Your task to perform on an android device: install app "LinkedIn" Image 0: 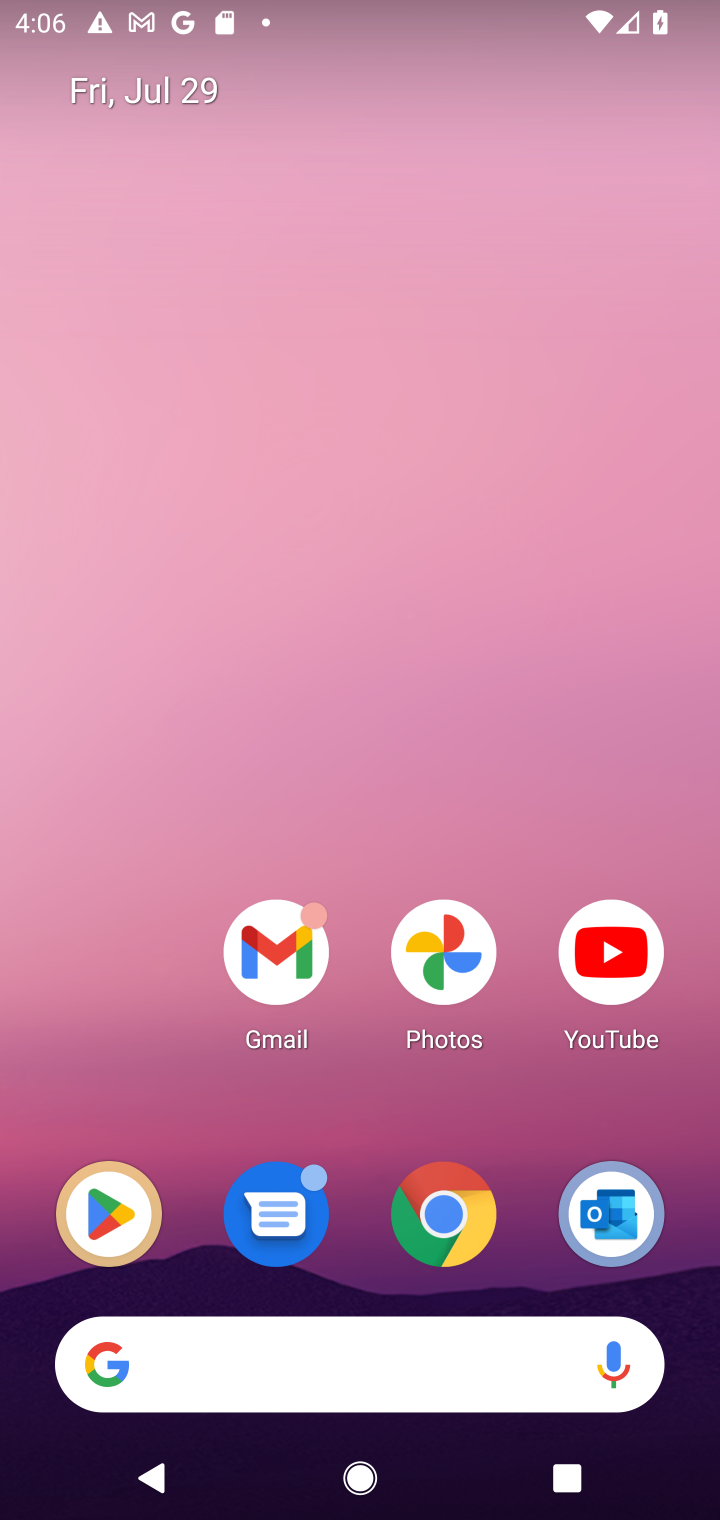
Step 0: click (116, 1229)
Your task to perform on an android device: install app "LinkedIn" Image 1: 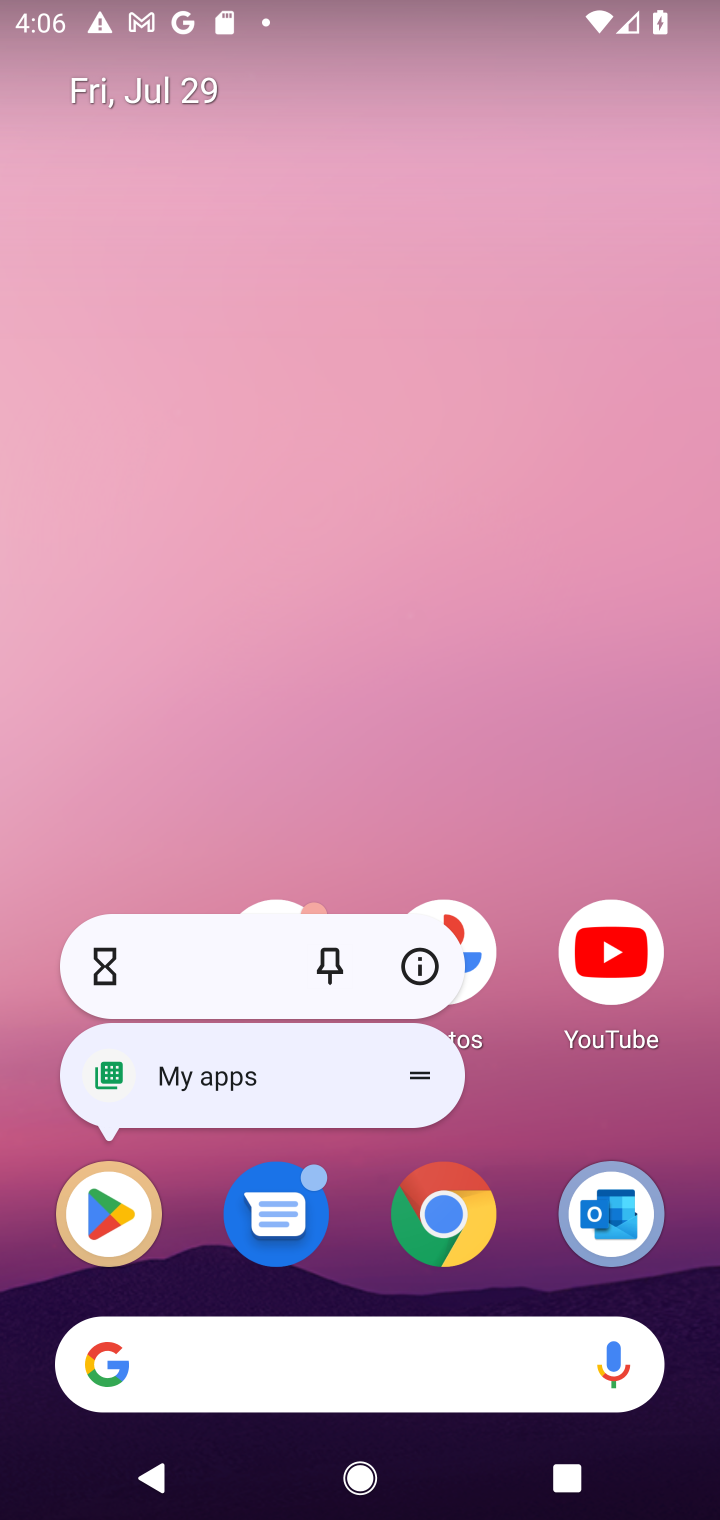
Step 1: click (120, 1217)
Your task to perform on an android device: install app "LinkedIn" Image 2: 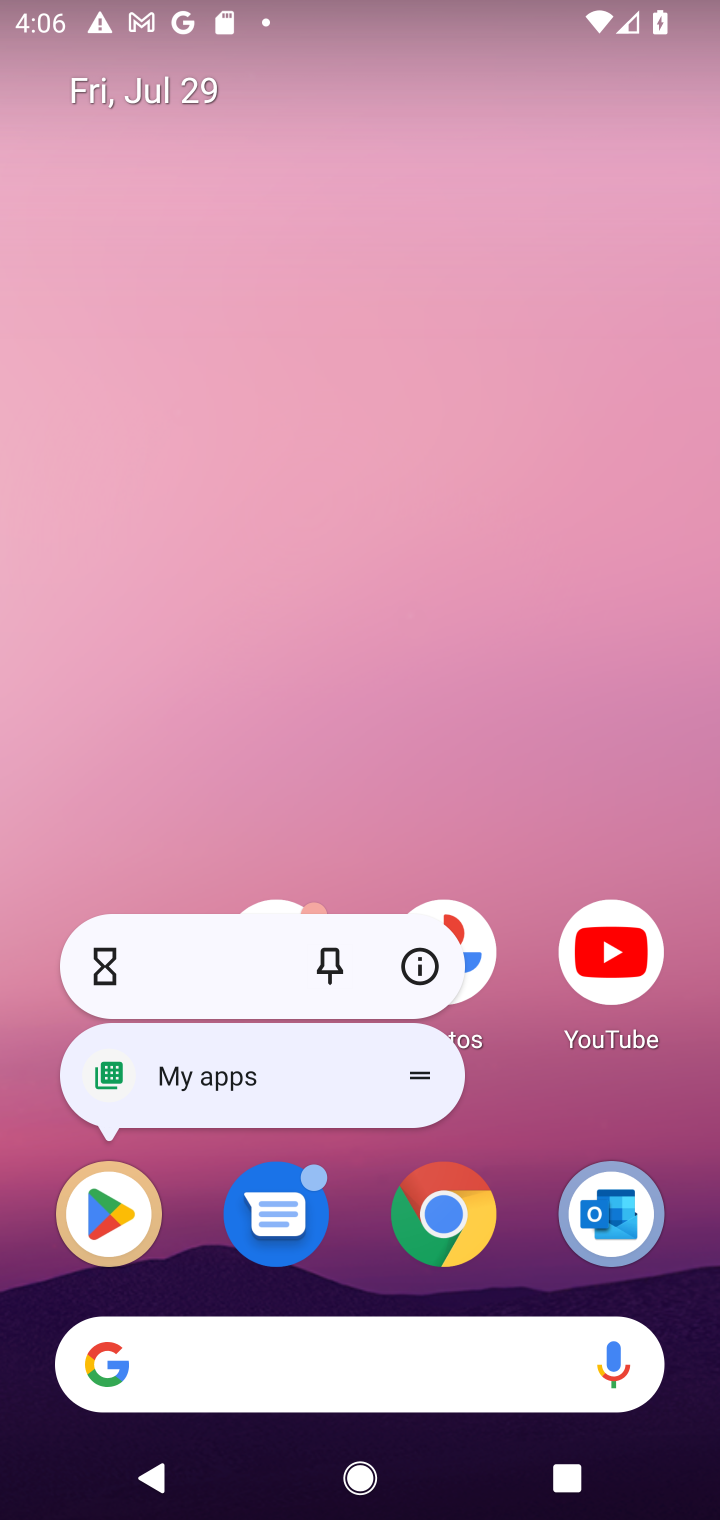
Step 2: click (120, 1217)
Your task to perform on an android device: install app "LinkedIn" Image 3: 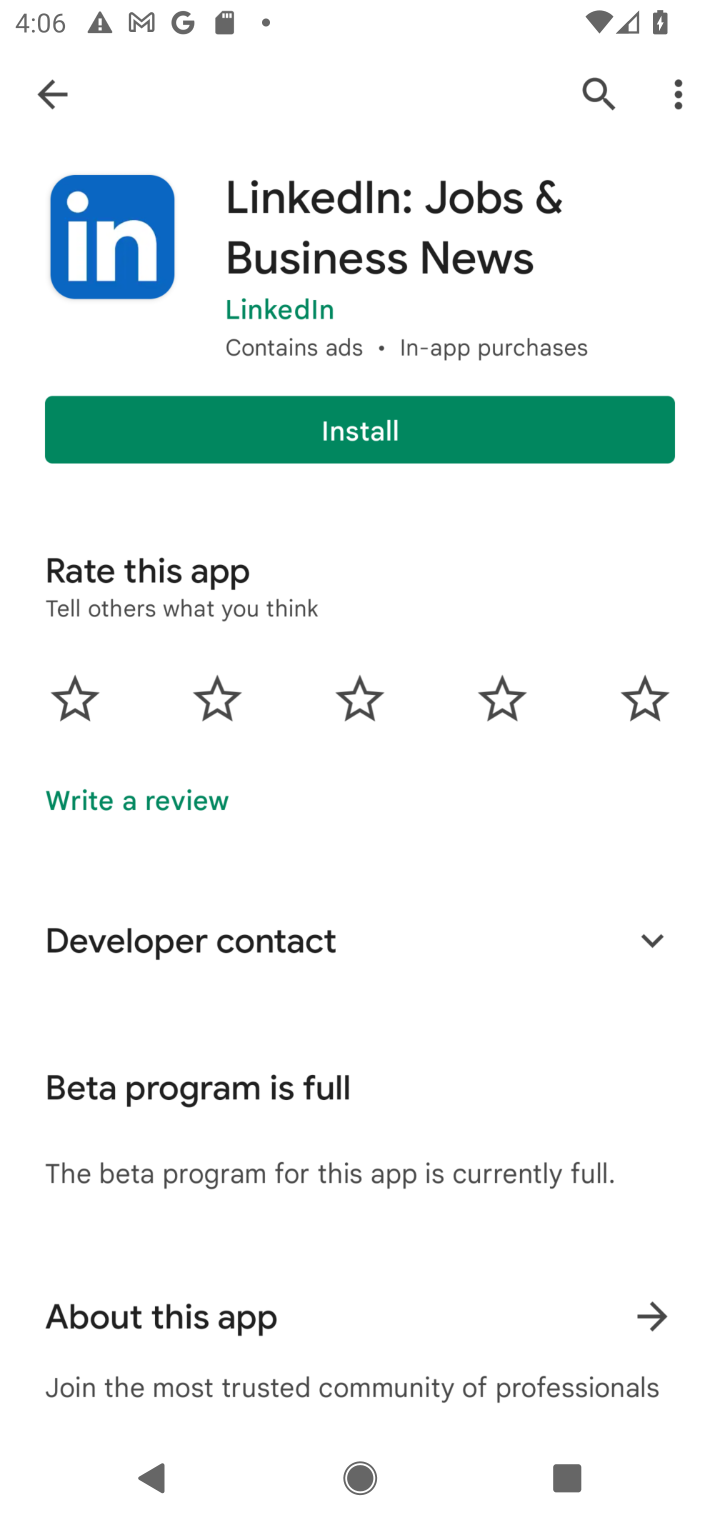
Step 3: click (124, 1219)
Your task to perform on an android device: install app "LinkedIn" Image 4: 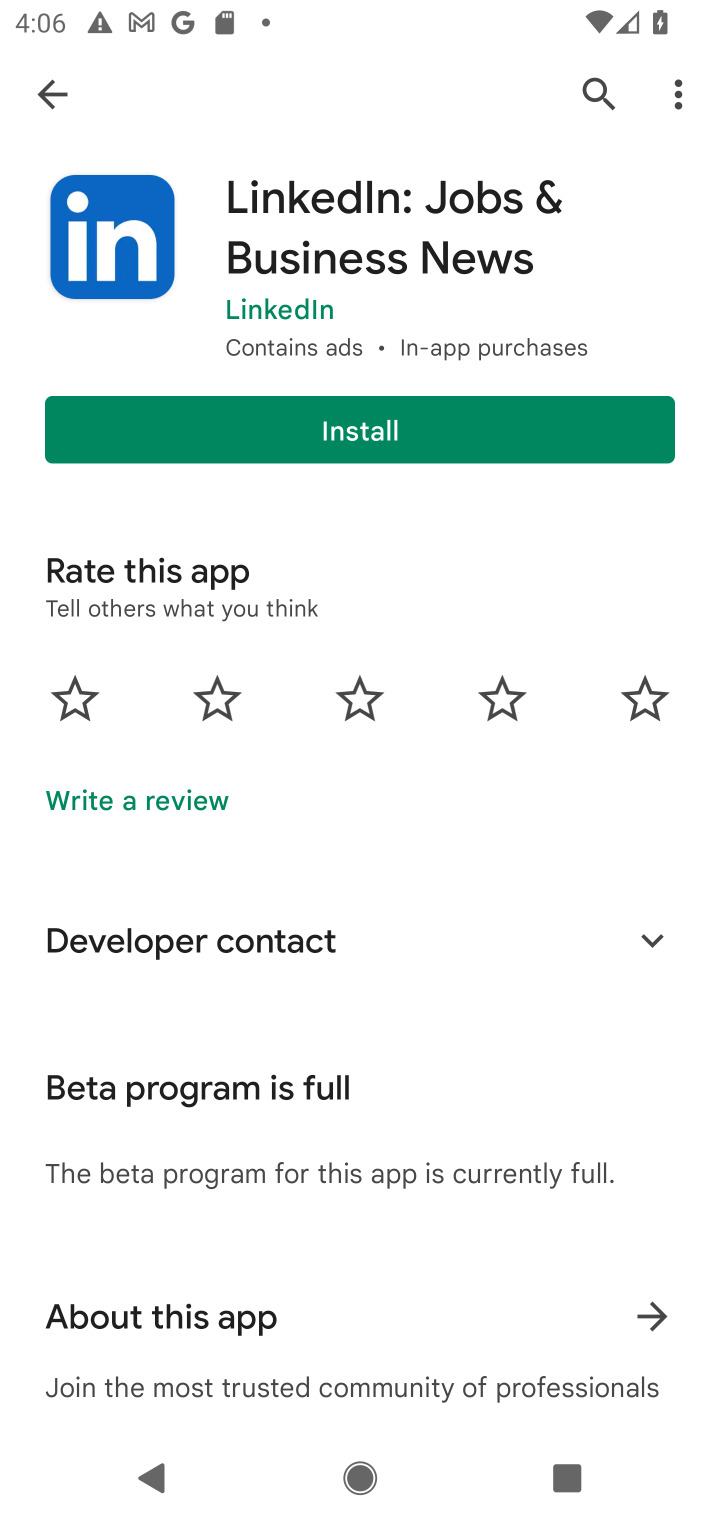
Step 4: click (389, 435)
Your task to perform on an android device: install app "LinkedIn" Image 5: 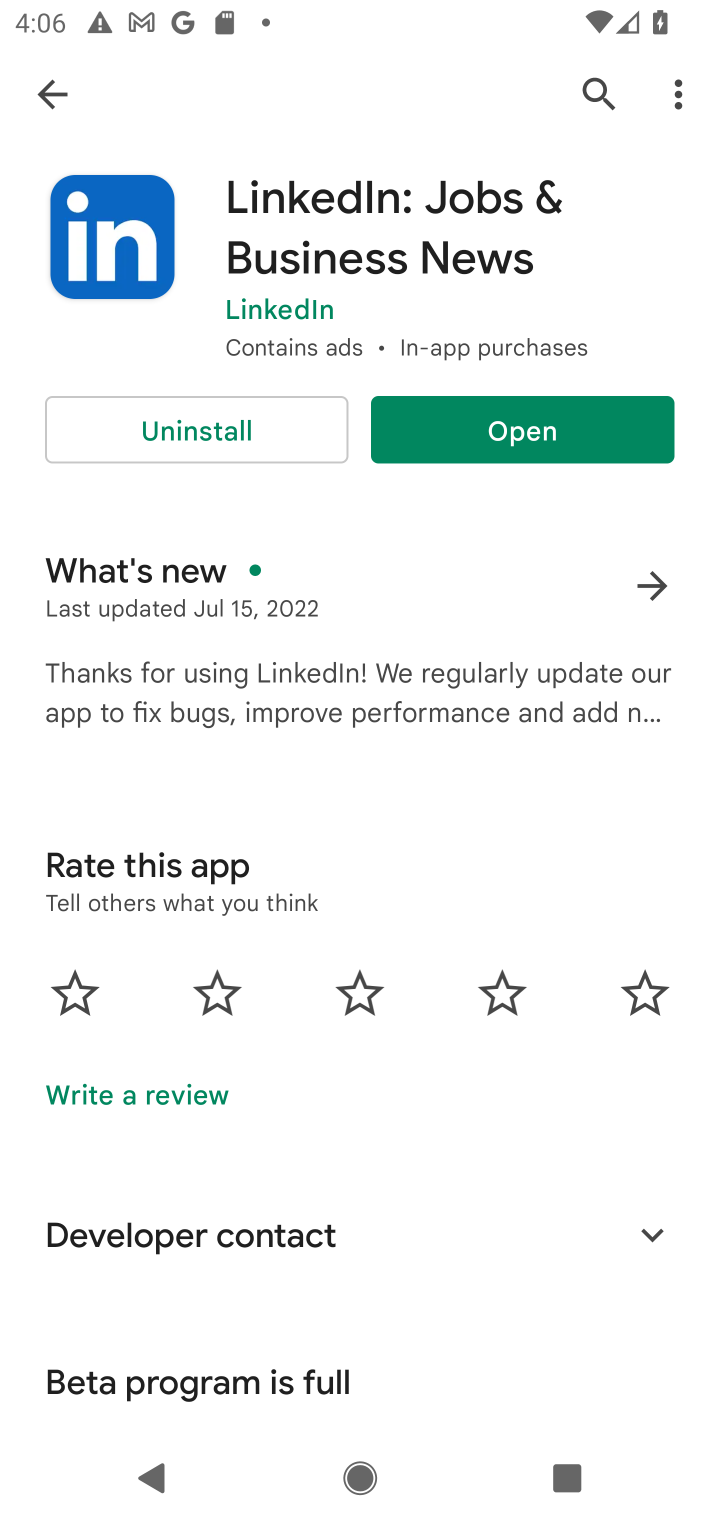
Step 5: click (457, 423)
Your task to perform on an android device: install app "LinkedIn" Image 6: 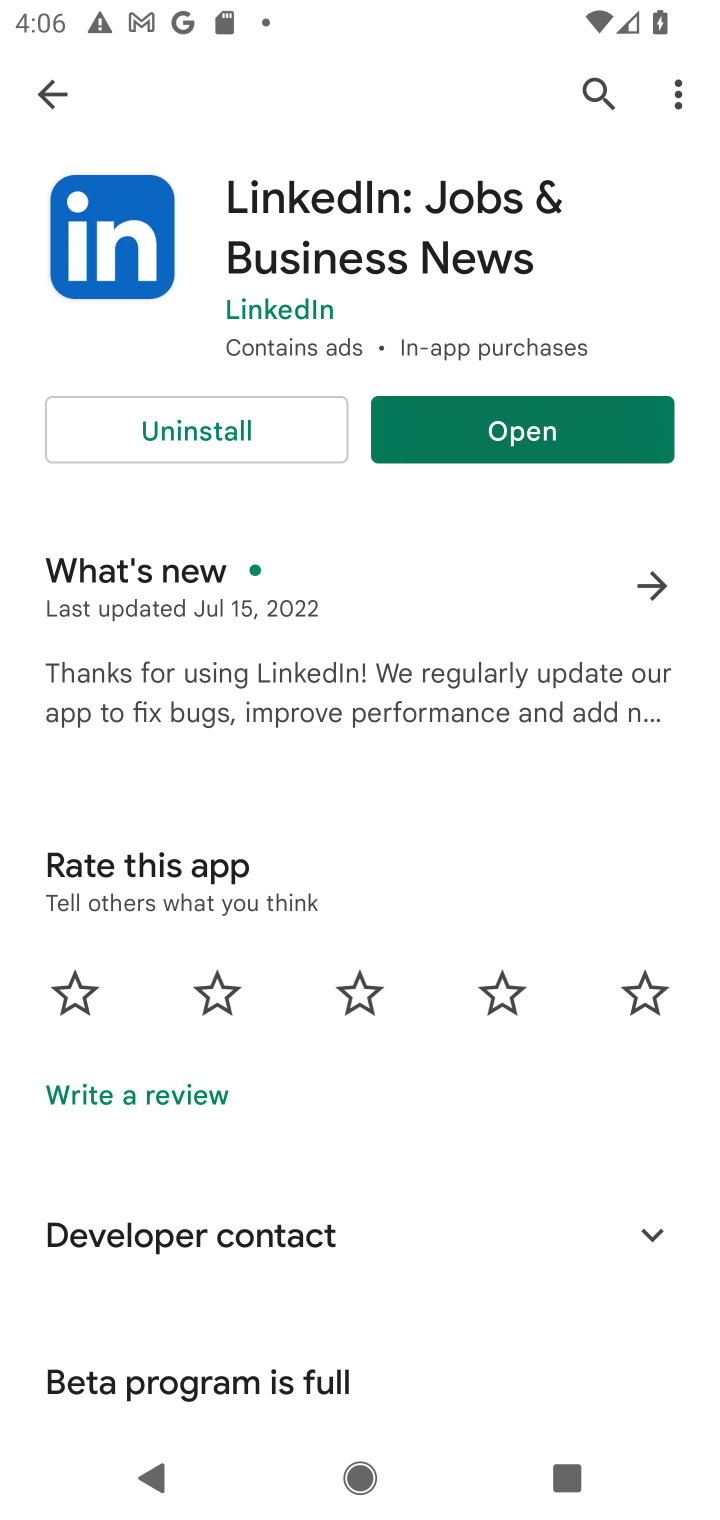
Step 6: task complete